Your task to perform on an android device: Open wifi settings Image 0: 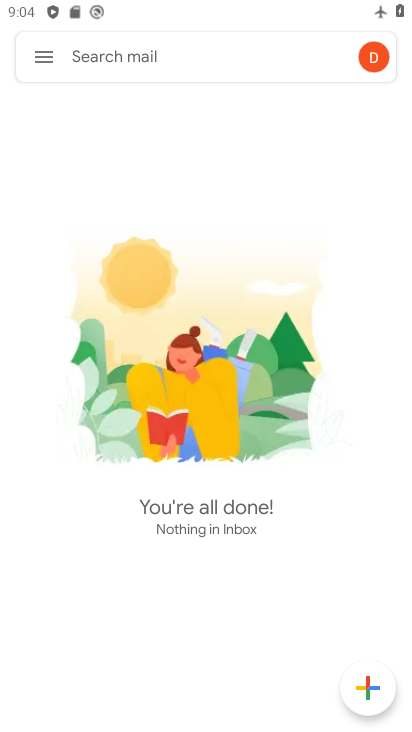
Step 0: press home button
Your task to perform on an android device: Open wifi settings Image 1: 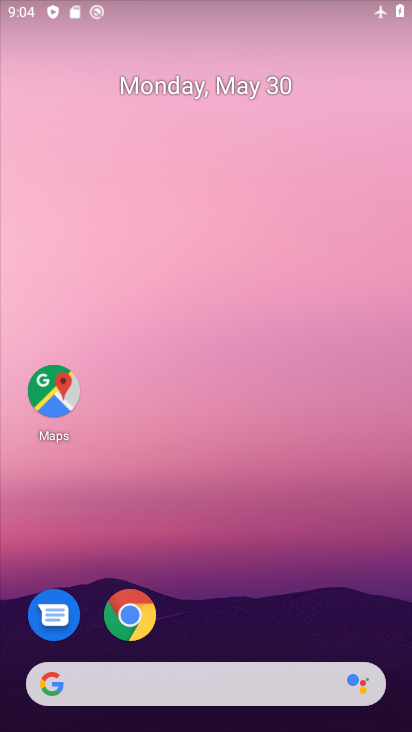
Step 1: drag from (113, 731) to (307, 93)
Your task to perform on an android device: Open wifi settings Image 2: 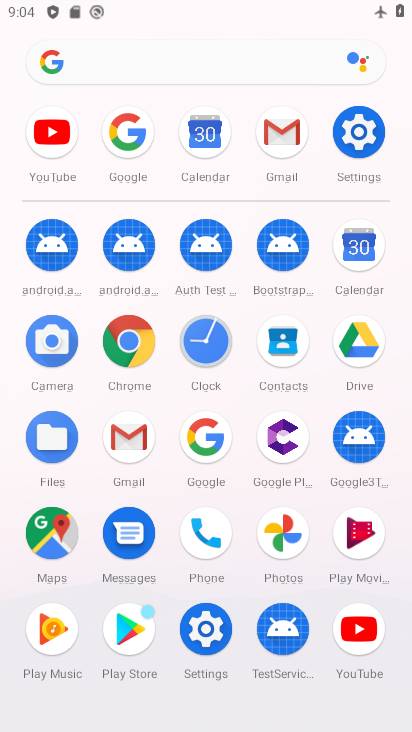
Step 2: click (359, 126)
Your task to perform on an android device: Open wifi settings Image 3: 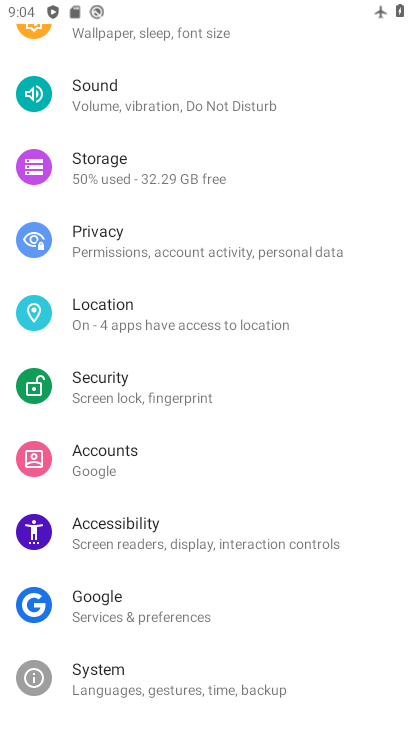
Step 3: drag from (255, 122) to (71, 686)
Your task to perform on an android device: Open wifi settings Image 4: 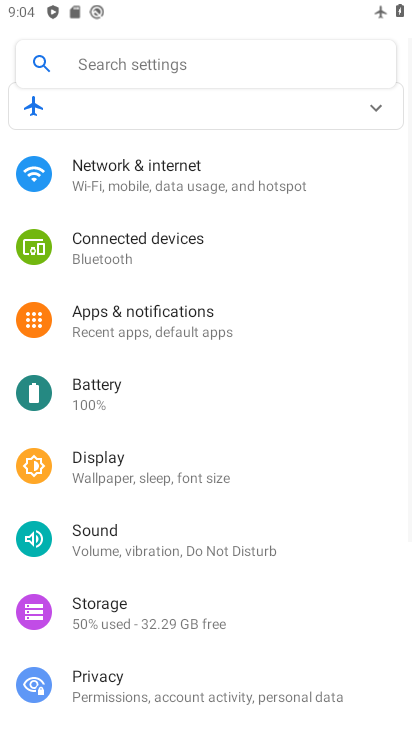
Step 4: click (151, 199)
Your task to perform on an android device: Open wifi settings Image 5: 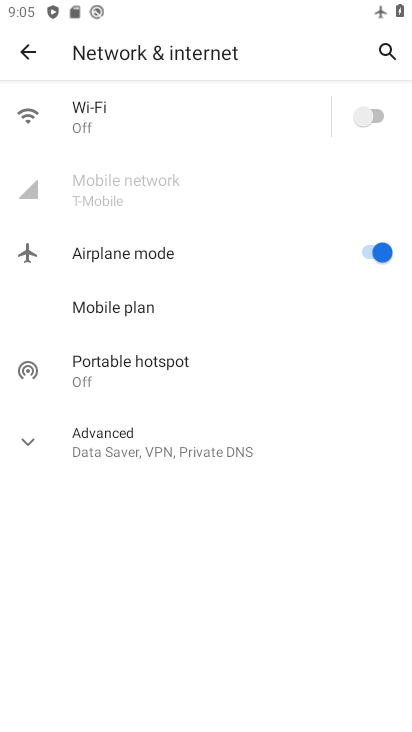
Step 5: task complete